Your task to perform on an android device: Search for Mexican restaurants on Maps Image 0: 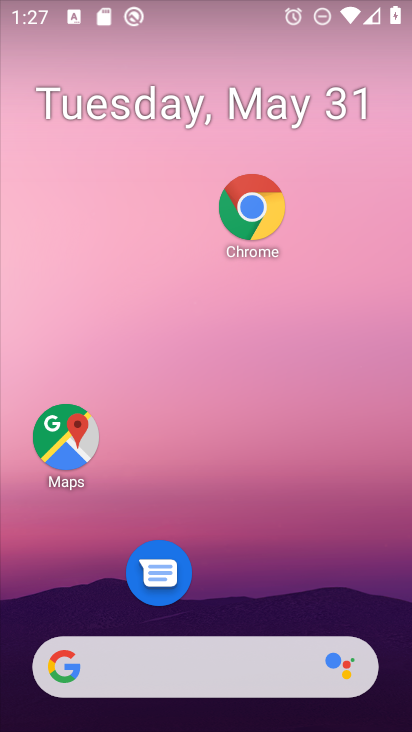
Step 0: drag from (253, 633) to (242, 213)
Your task to perform on an android device: Search for Mexican restaurants on Maps Image 1: 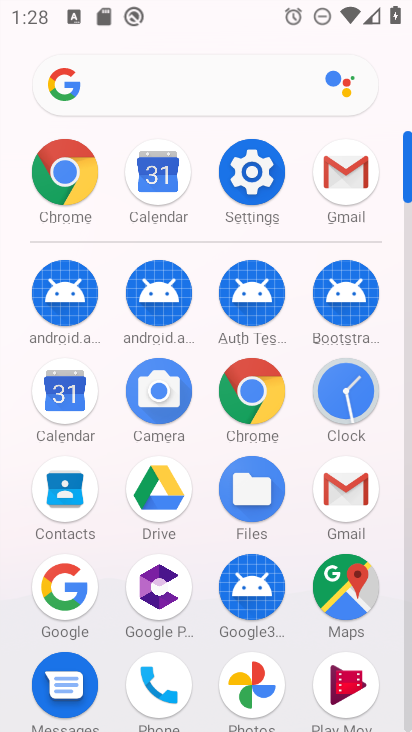
Step 1: click (356, 605)
Your task to perform on an android device: Search for Mexican restaurants on Maps Image 2: 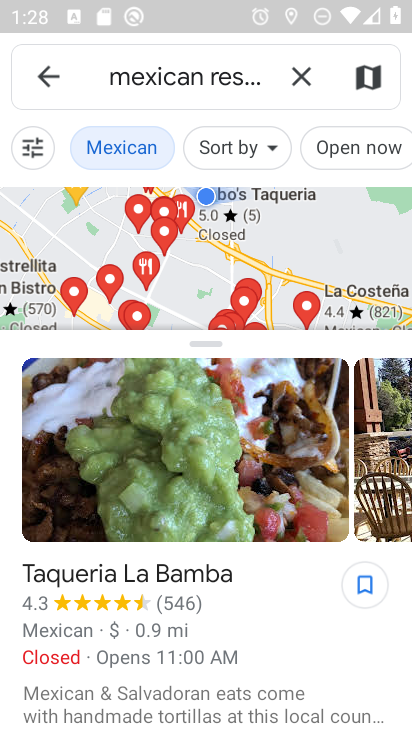
Step 2: task complete